Your task to perform on an android device: Go to display settings Image 0: 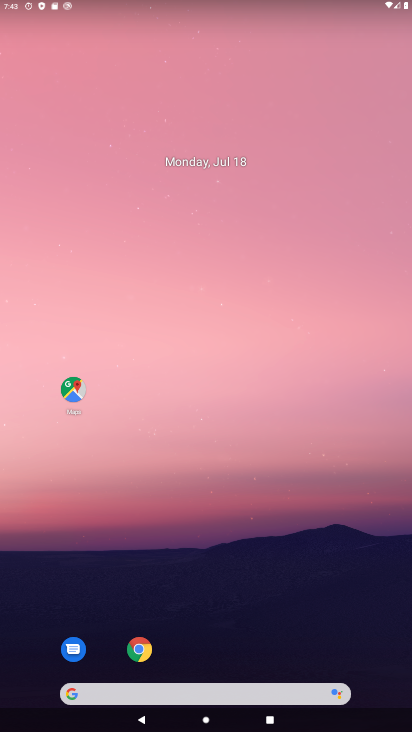
Step 0: drag from (358, 572) to (312, 134)
Your task to perform on an android device: Go to display settings Image 1: 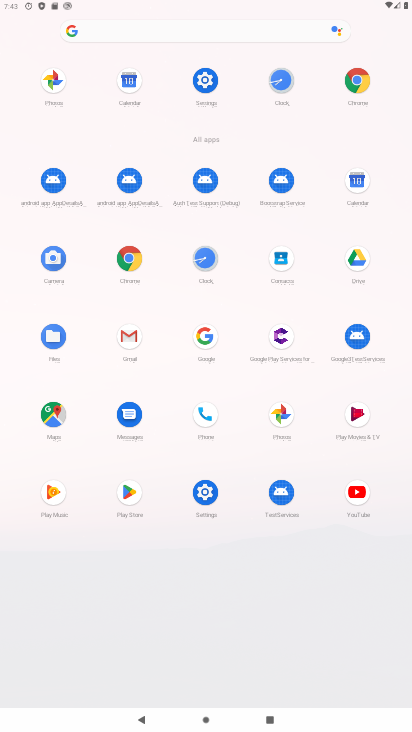
Step 1: click (210, 85)
Your task to perform on an android device: Go to display settings Image 2: 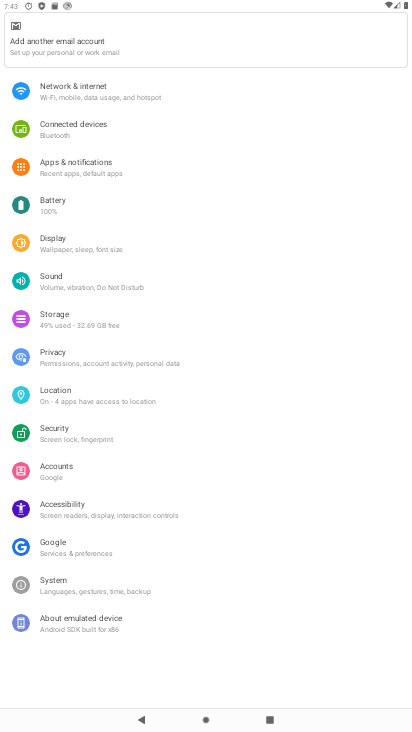
Step 2: click (79, 250)
Your task to perform on an android device: Go to display settings Image 3: 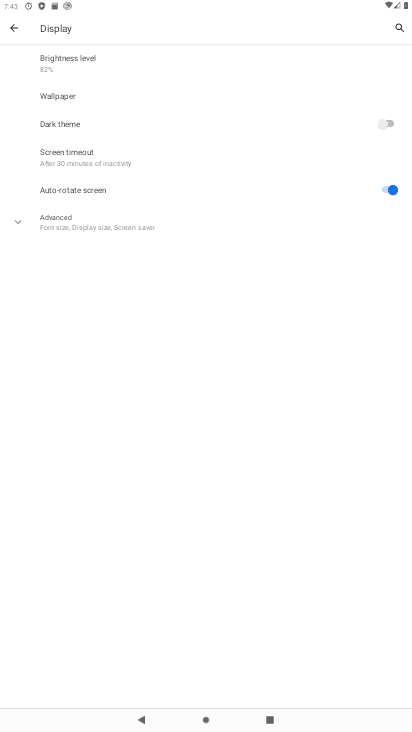
Step 3: task complete